Your task to perform on an android device: Search for pizza restaurants on Maps Image 0: 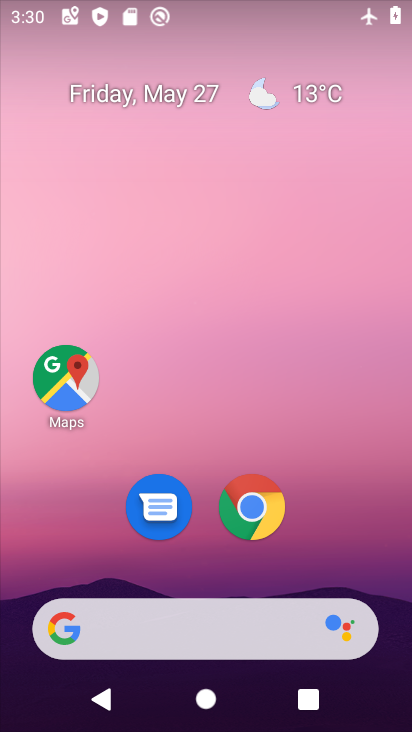
Step 0: click (74, 390)
Your task to perform on an android device: Search for pizza restaurants on Maps Image 1: 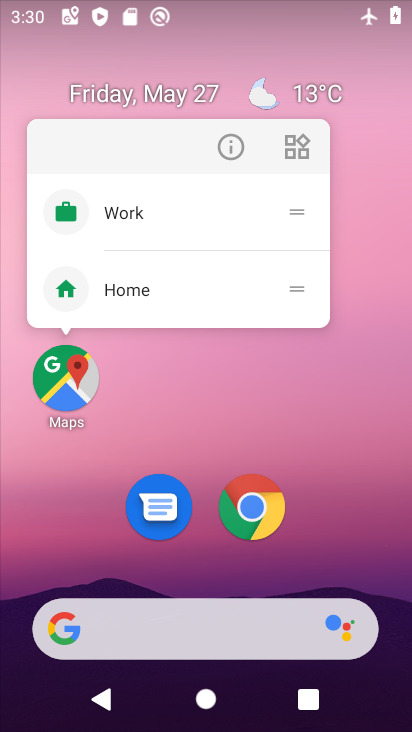
Step 1: click (73, 389)
Your task to perform on an android device: Search for pizza restaurants on Maps Image 2: 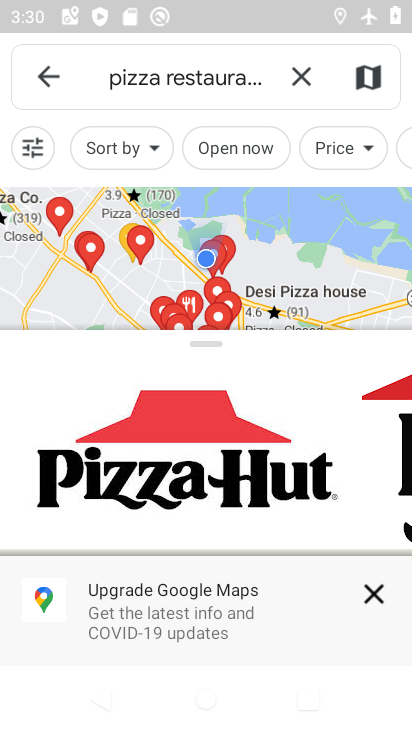
Step 2: task complete